Your task to perform on an android device: change notifications settings Image 0: 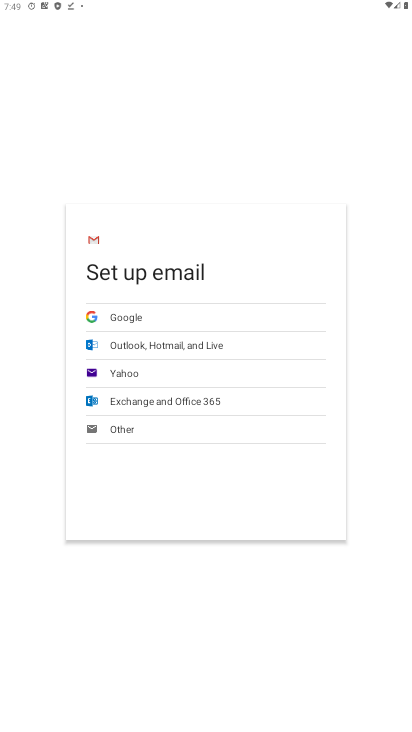
Step 0: press home button
Your task to perform on an android device: change notifications settings Image 1: 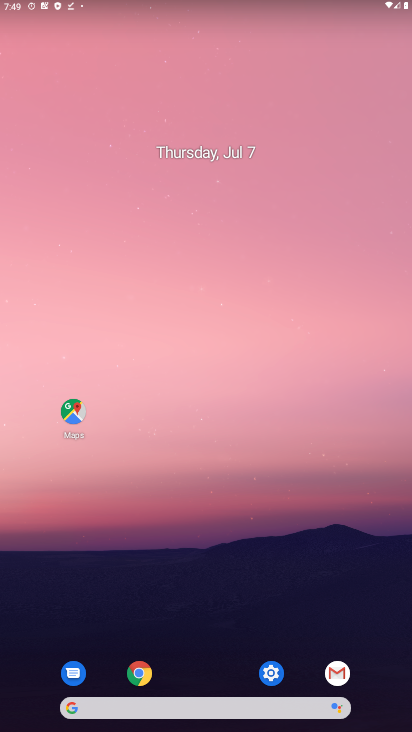
Step 1: click (271, 680)
Your task to perform on an android device: change notifications settings Image 2: 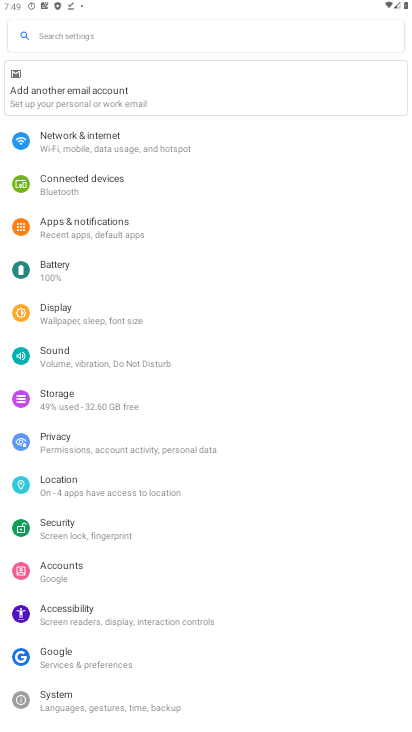
Step 2: click (99, 44)
Your task to perform on an android device: change notifications settings Image 3: 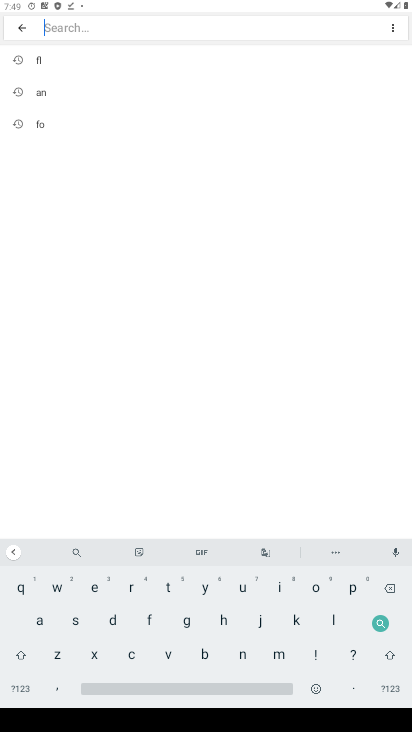
Step 3: click (238, 655)
Your task to perform on an android device: change notifications settings Image 4: 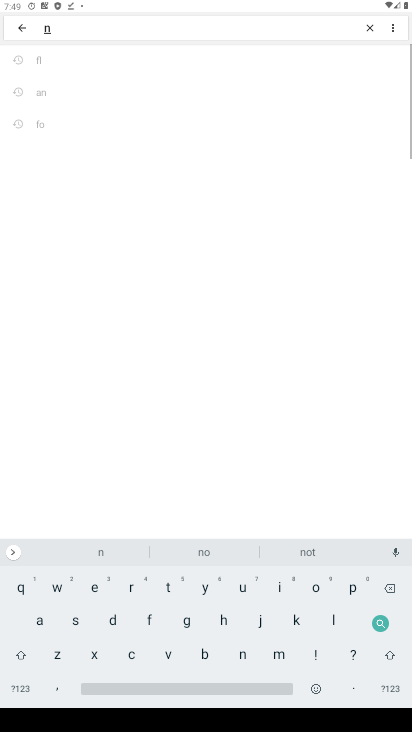
Step 4: click (315, 585)
Your task to perform on an android device: change notifications settings Image 5: 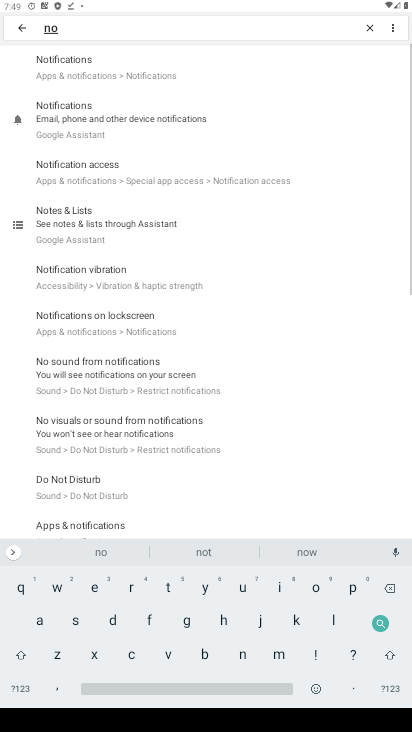
Step 5: click (116, 74)
Your task to perform on an android device: change notifications settings Image 6: 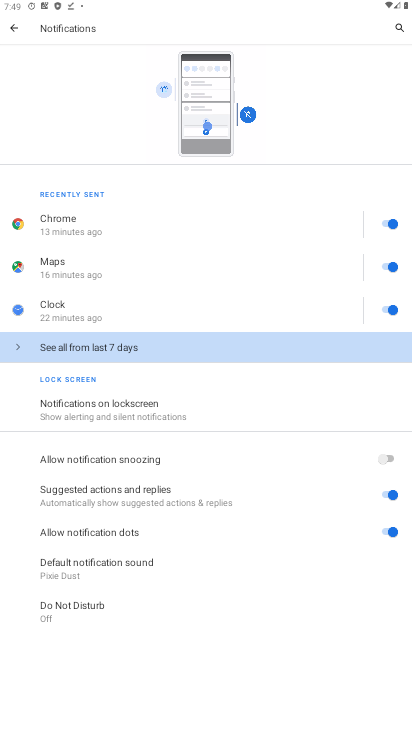
Step 6: click (150, 410)
Your task to perform on an android device: change notifications settings Image 7: 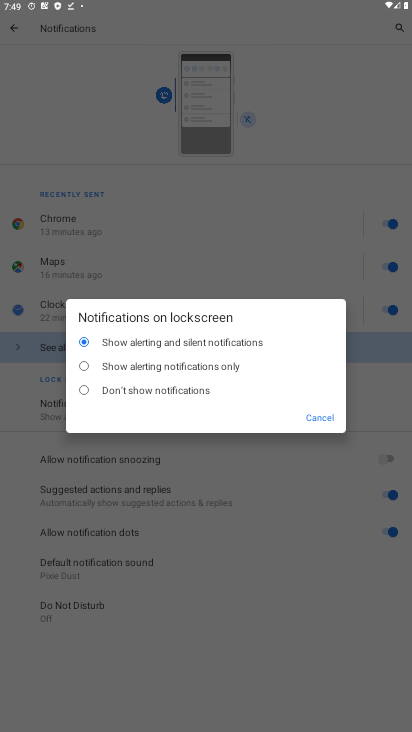
Step 7: click (140, 368)
Your task to perform on an android device: change notifications settings Image 8: 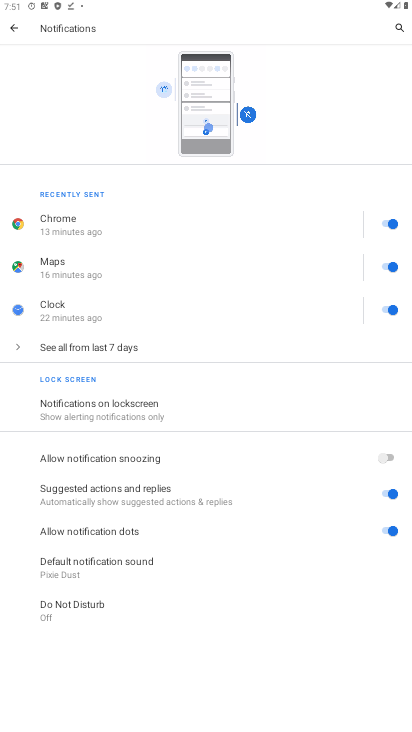
Step 8: task complete